Your task to perform on an android device: Go to Wikipedia Image 0: 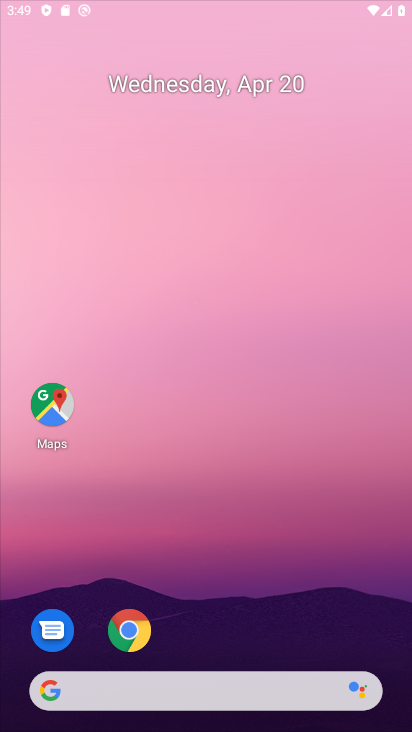
Step 0: click (321, 68)
Your task to perform on an android device: Go to Wikipedia Image 1: 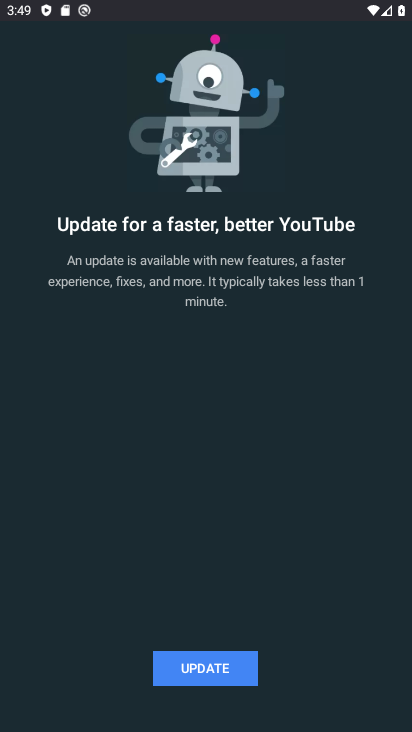
Step 1: press home button
Your task to perform on an android device: Go to Wikipedia Image 2: 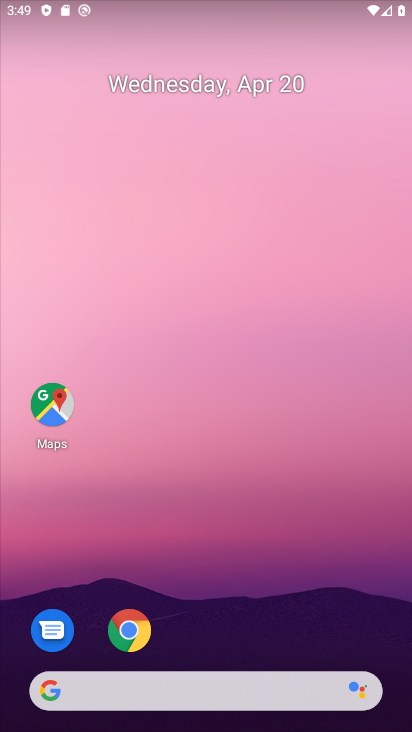
Step 2: drag from (246, 645) to (239, 33)
Your task to perform on an android device: Go to Wikipedia Image 3: 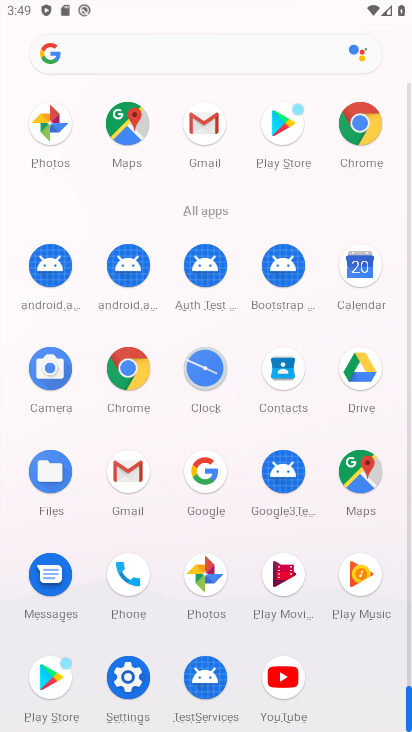
Step 3: click (133, 380)
Your task to perform on an android device: Go to Wikipedia Image 4: 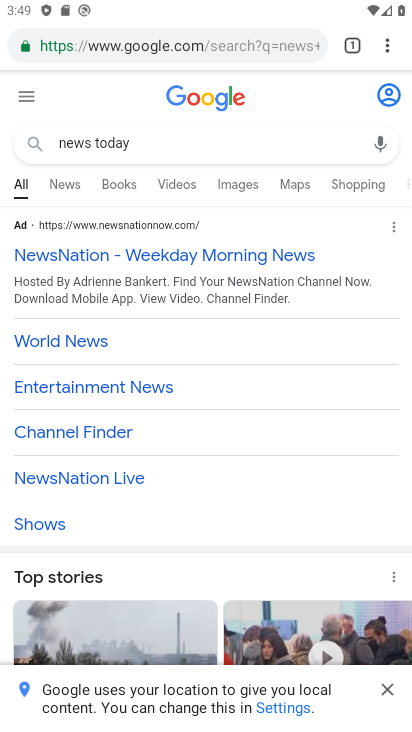
Step 4: click (196, 35)
Your task to perform on an android device: Go to Wikipedia Image 5: 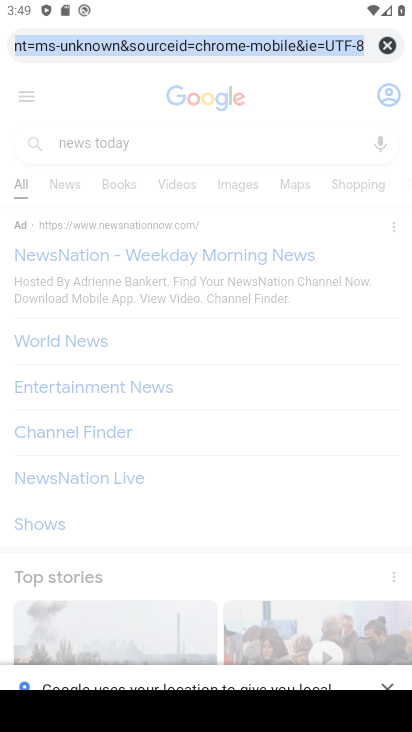
Step 5: click (391, 48)
Your task to perform on an android device: Go to Wikipedia Image 6: 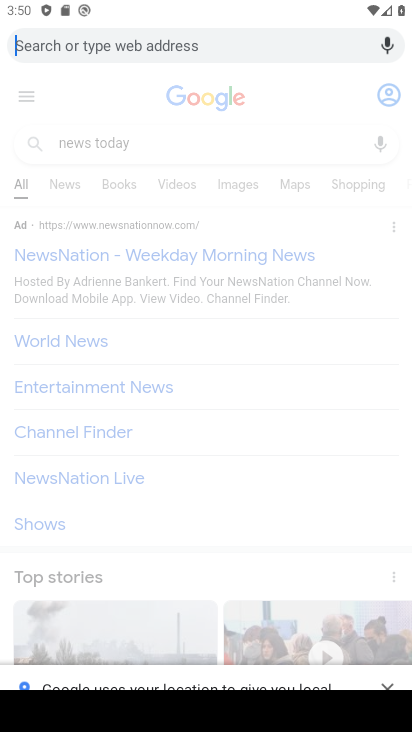
Step 6: type "wikipedia"
Your task to perform on an android device: Go to Wikipedia Image 7: 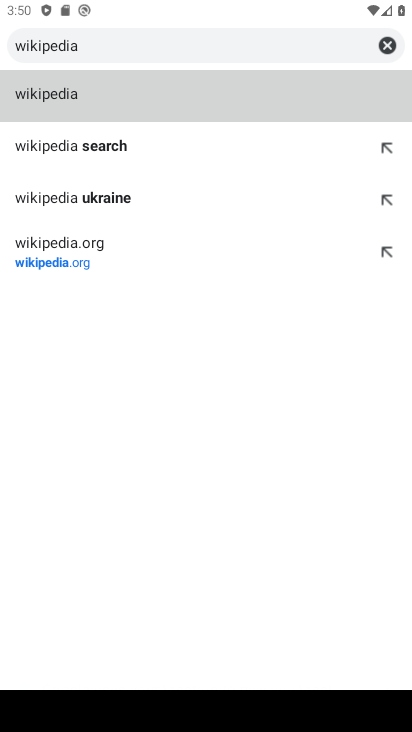
Step 7: click (198, 87)
Your task to perform on an android device: Go to Wikipedia Image 8: 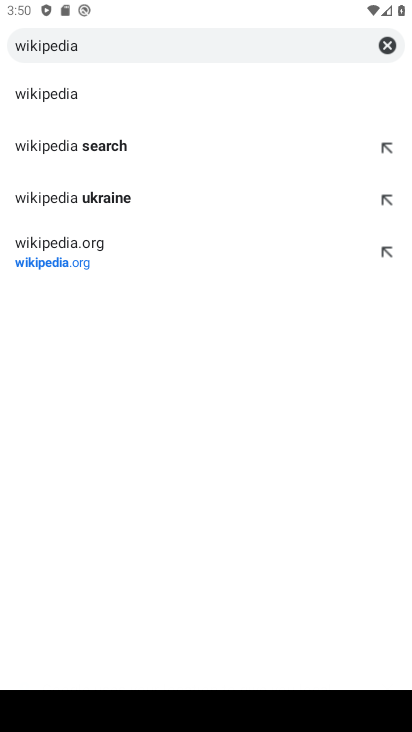
Step 8: click (87, 95)
Your task to perform on an android device: Go to Wikipedia Image 9: 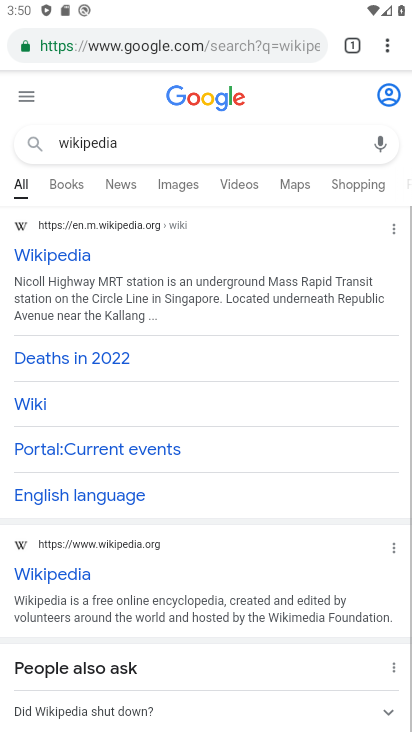
Step 9: task complete